Your task to perform on an android device: Open the calendar app, open the side menu, and click the "Day" option Image 0: 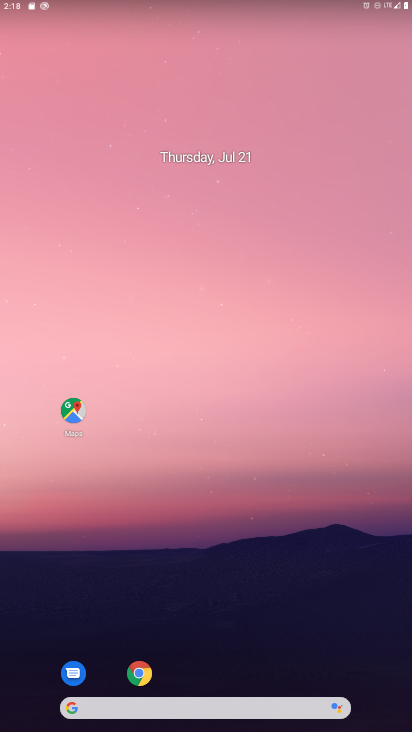
Step 0: drag from (119, 619) to (124, 415)
Your task to perform on an android device: Open the calendar app, open the side menu, and click the "Day" option Image 1: 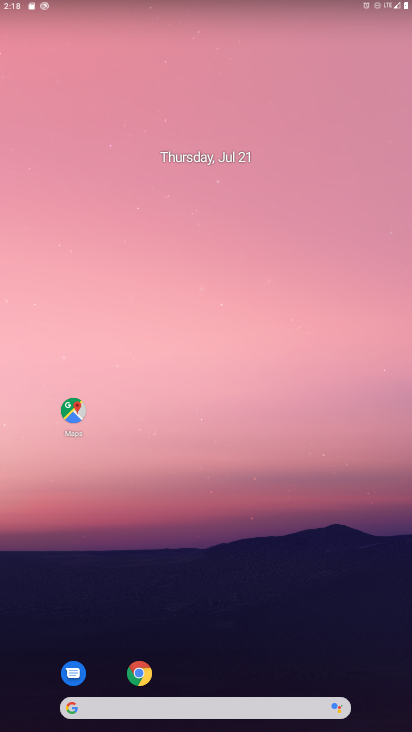
Step 1: drag from (217, 706) to (217, 613)
Your task to perform on an android device: Open the calendar app, open the side menu, and click the "Day" option Image 2: 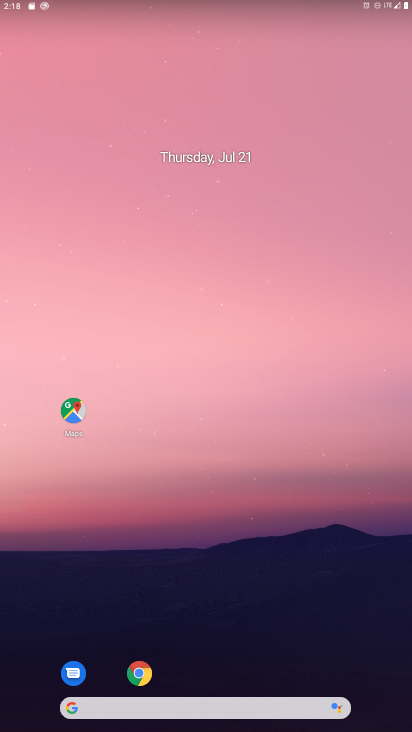
Step 2: drag from (243, 672) to (240, 612)
Your task to perform on an android device: Open the calendar app, open the side menu, and click the "Day" option Image 3: 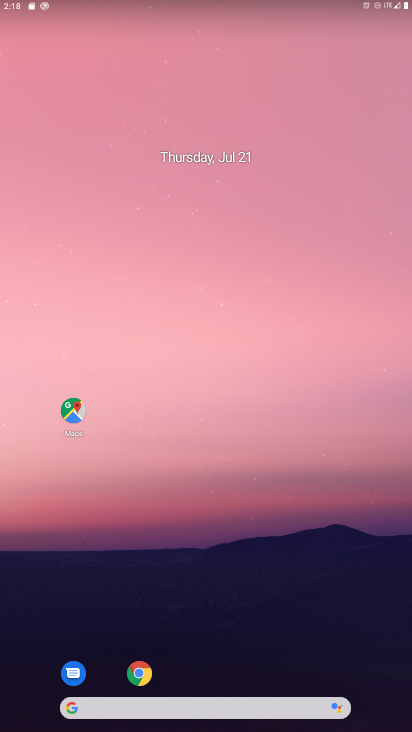
Step 3: drag from (223, 664) to (215, 211)
Your task to perform on an android device: Open the calendar app, open the side menu, and click the "Day" option Image 4: 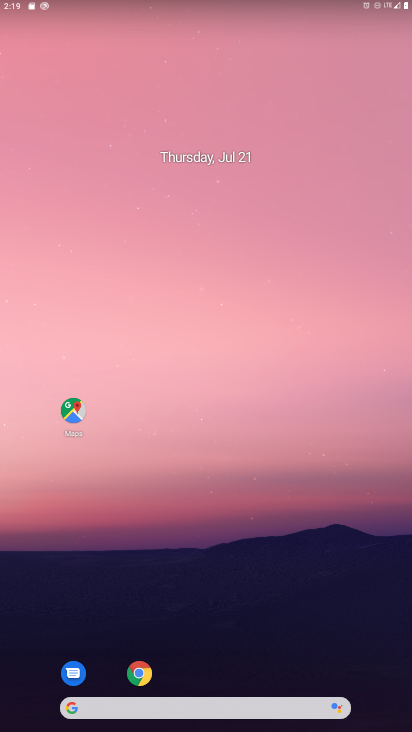
Step 4: drag from (211, 657) to (243, 30)
Your task to perform on an android device: Open the calendar app, open the side menu, and click the "Day" option Image 5: 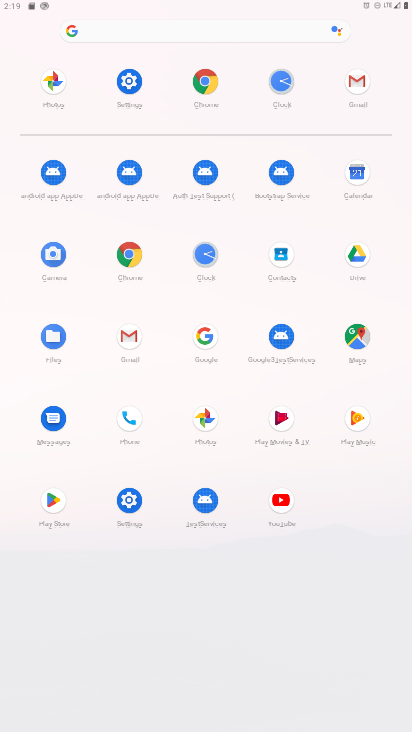
Step 5: click (197, 254)
Your task to perform on an android device: Open the calendar app, open the side menu, and click the "Day" option Image 6: 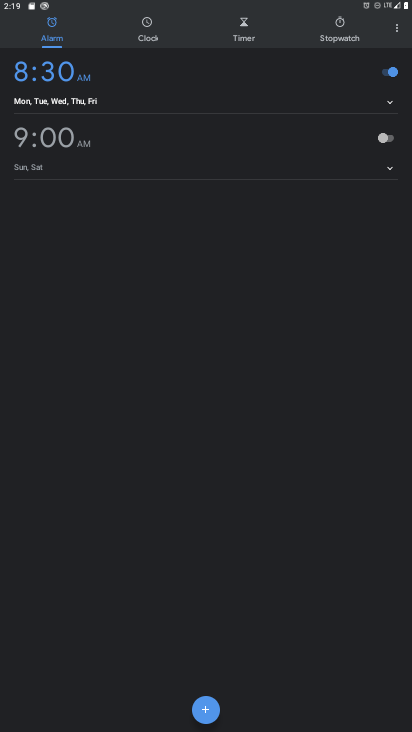
Step 6: task complete